Your task to perform on an android device: Search for "dell alienware" on bestbuy, select the first entry, and add it to the cart. Image 0: 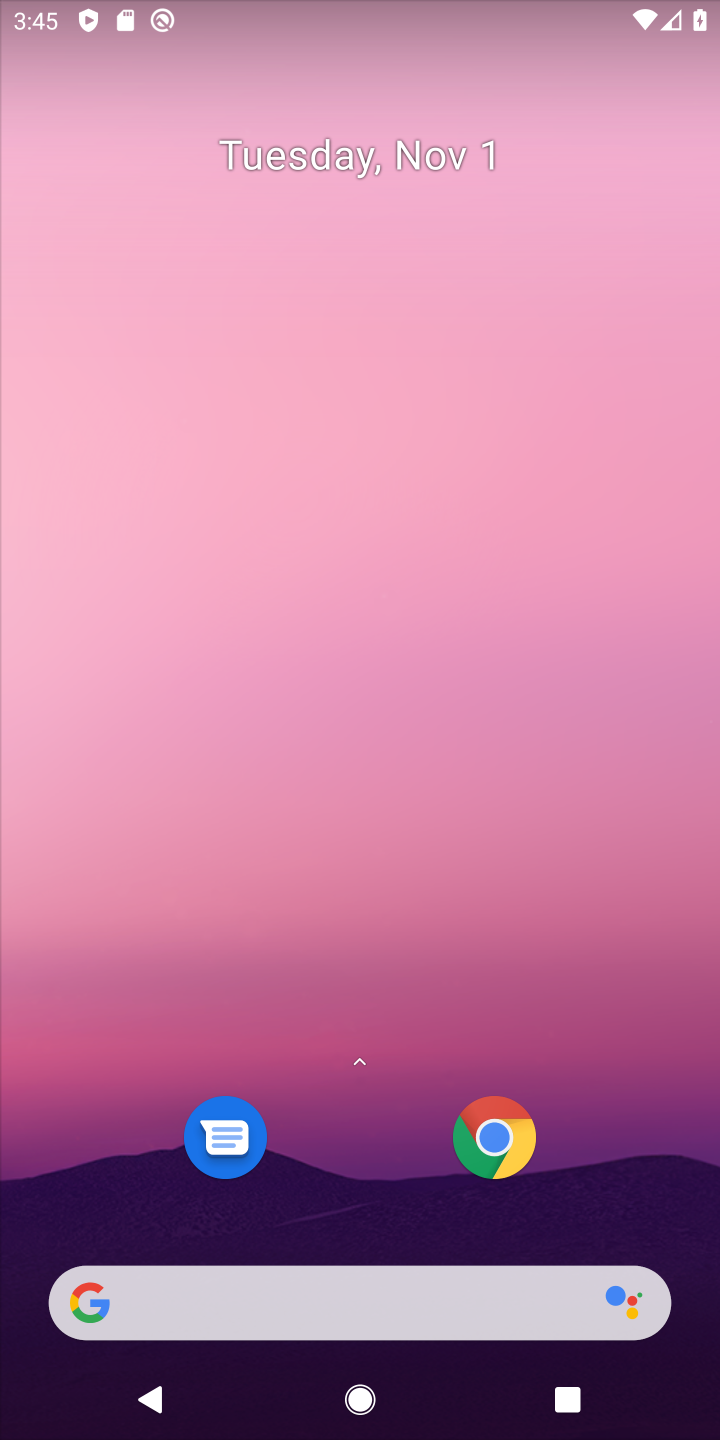
Step 0: click (463, 1313)
Your task to perform on an android device: Search for "dell alienware" on bestbuy, select the first entry, and add it to the cart. Image 1: 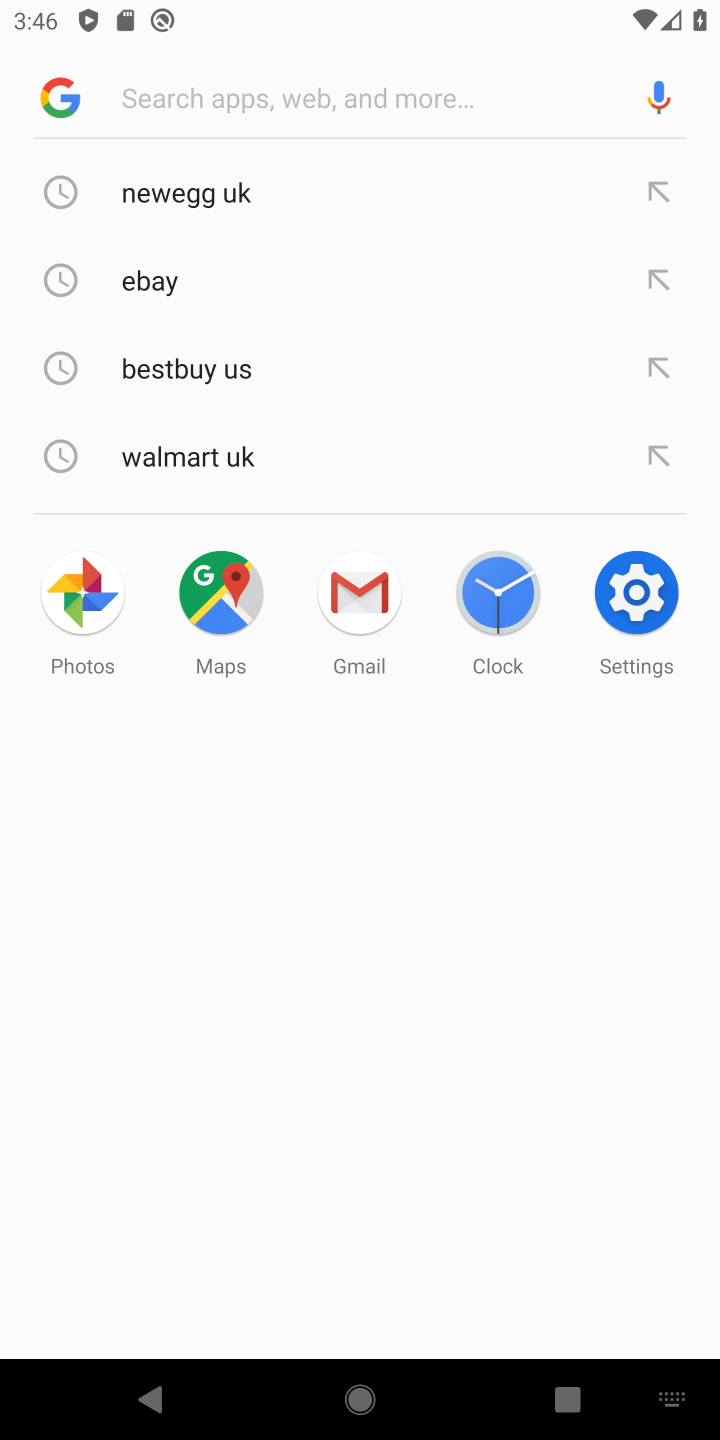
Step 1: type "bestbuy"
Your task to perform on an android device: Search for "dell alienware" on bestbuy, select the first entry, and add it to the cart. Image 2: 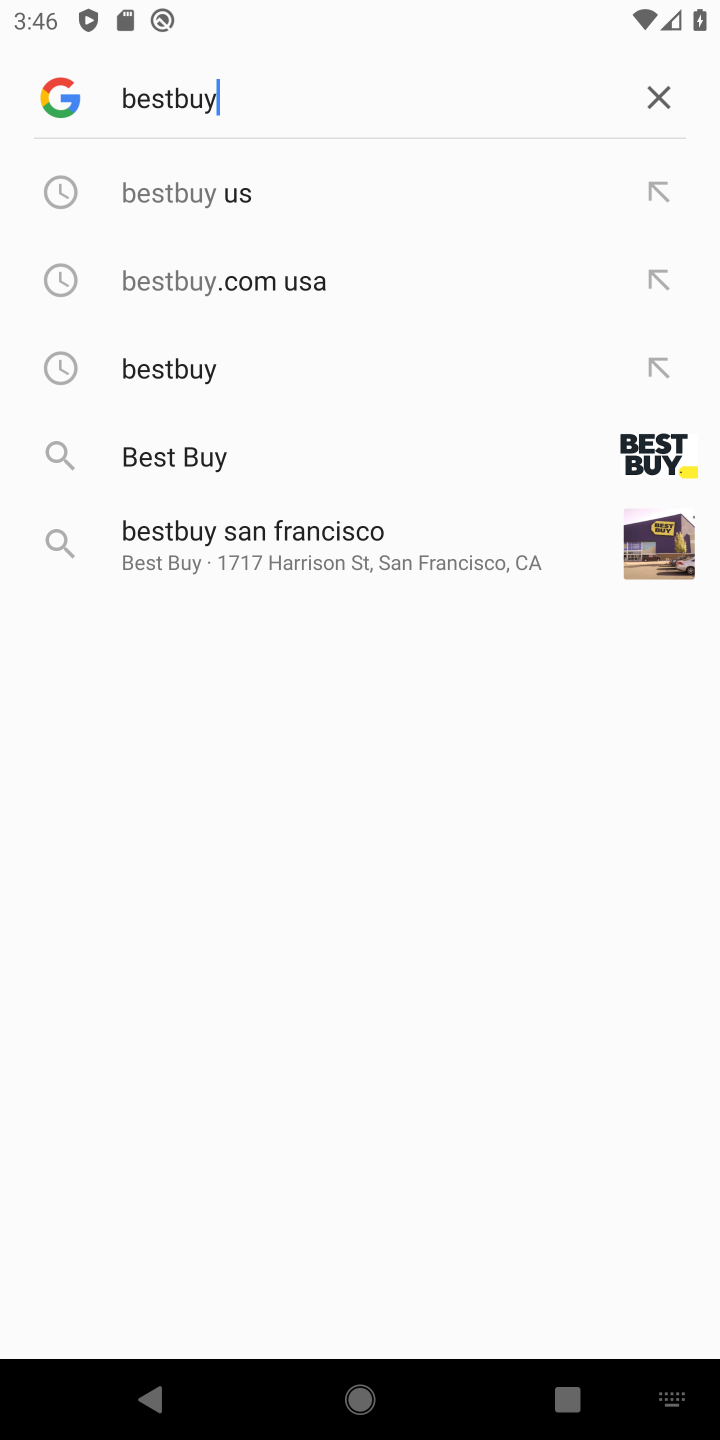
Step 2: click (181, 178)
Your task to perform on an android device: Search for "dell alienware" on bestbuy, select the first entry, and add it to the cart. Image 3: 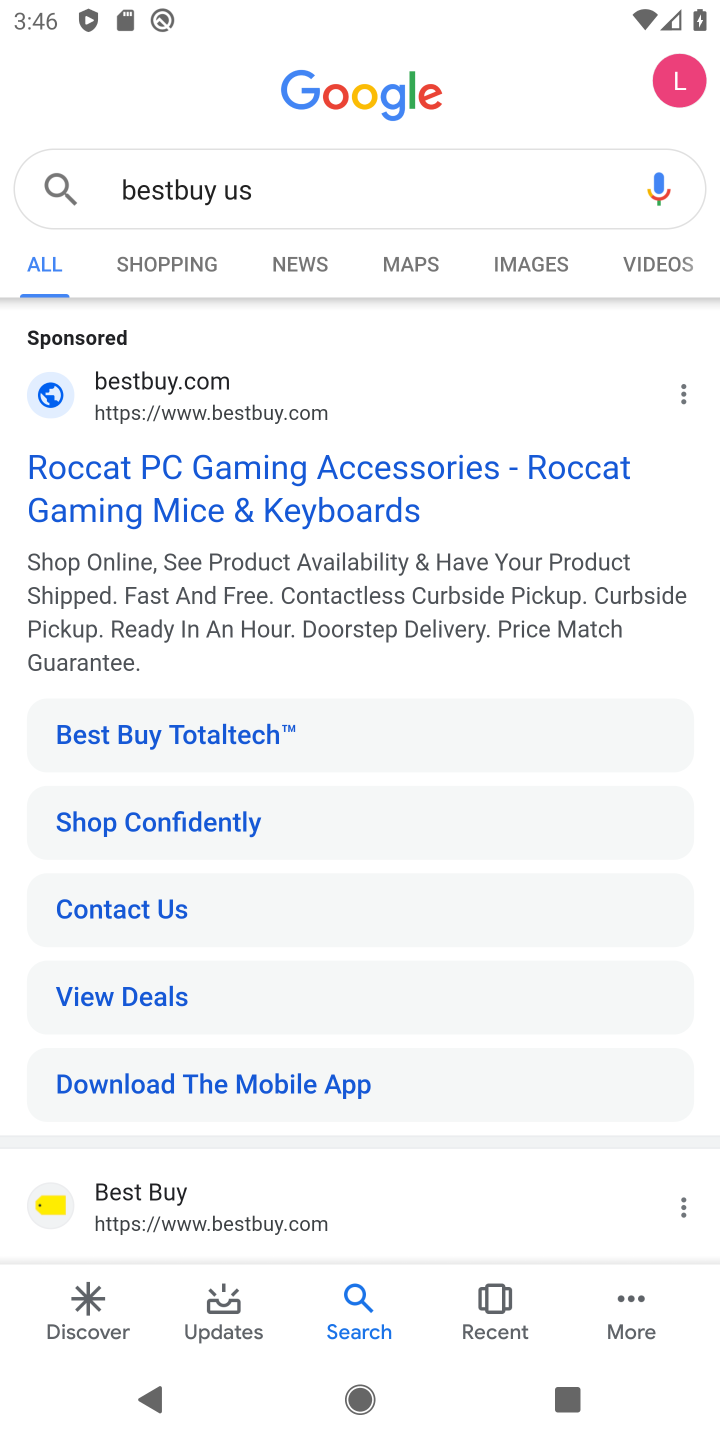
Step 3: click (256, 473)
Your task to perform on an android device: Search for "dell alienware" on bestbuy, select the first entry, and add it to the cart. Image 4: 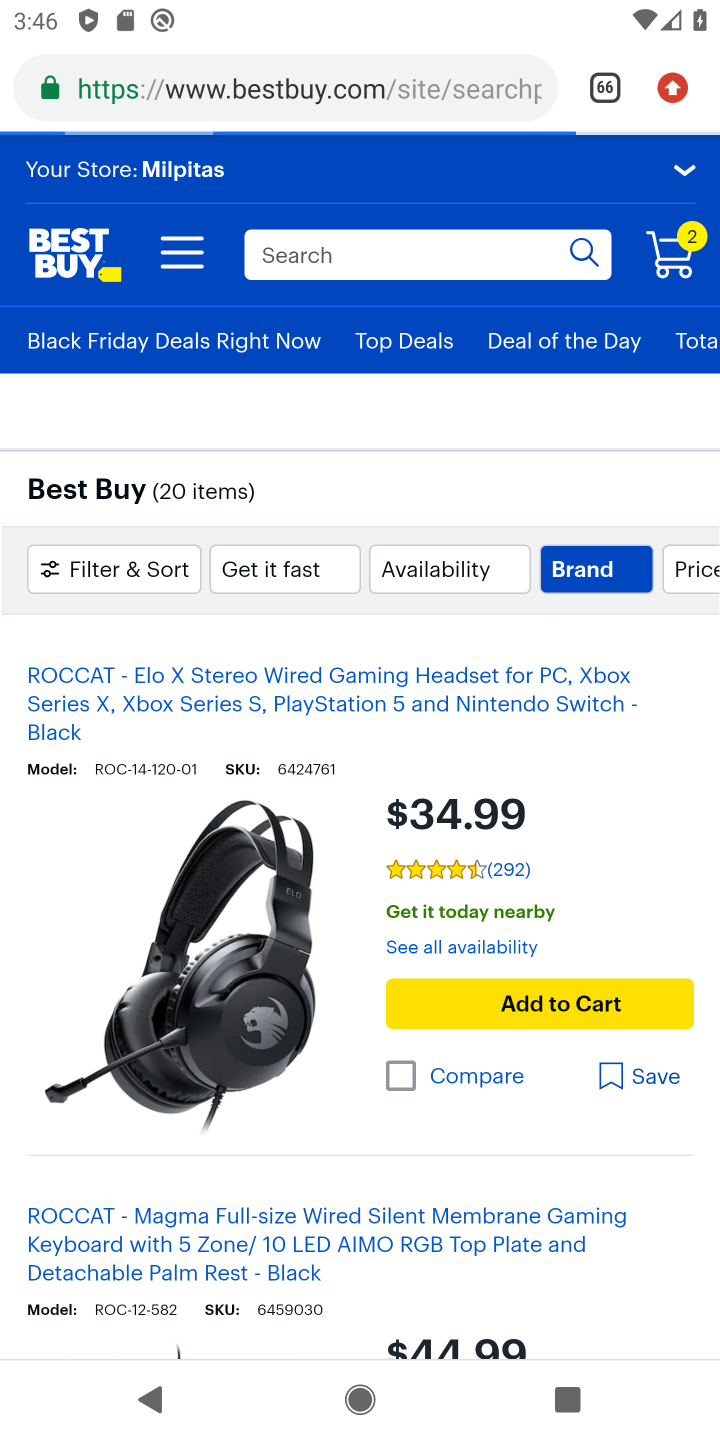
Step 4: click (311, 252)
Your task to perform on an android device: Search for "dell alienware" on bestbuy, select the first entry, and add it to the cart. Image 5: 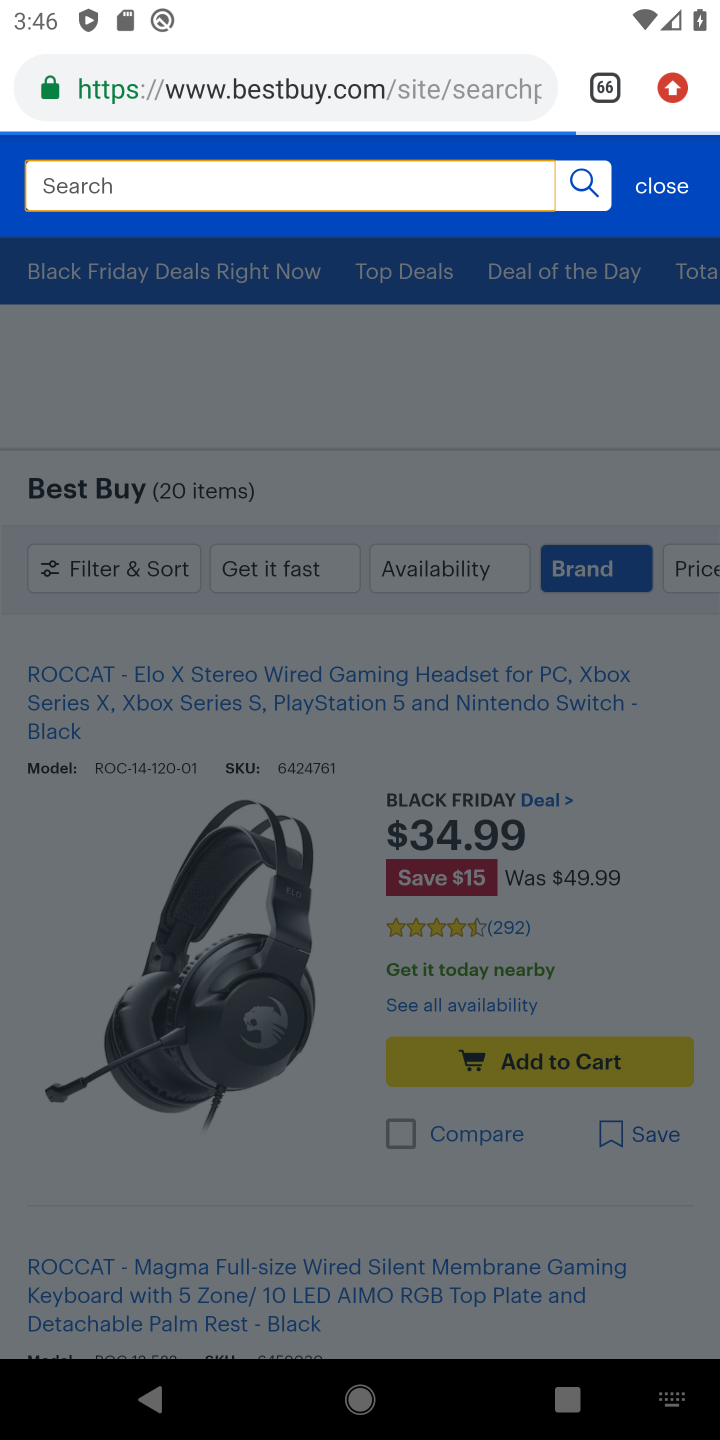
Step 5: type "dell alienware"
Your task to perform on an android device: Search for "dell alienware" on bestbuy, select the first entry, and add it to the cart. Image 6: 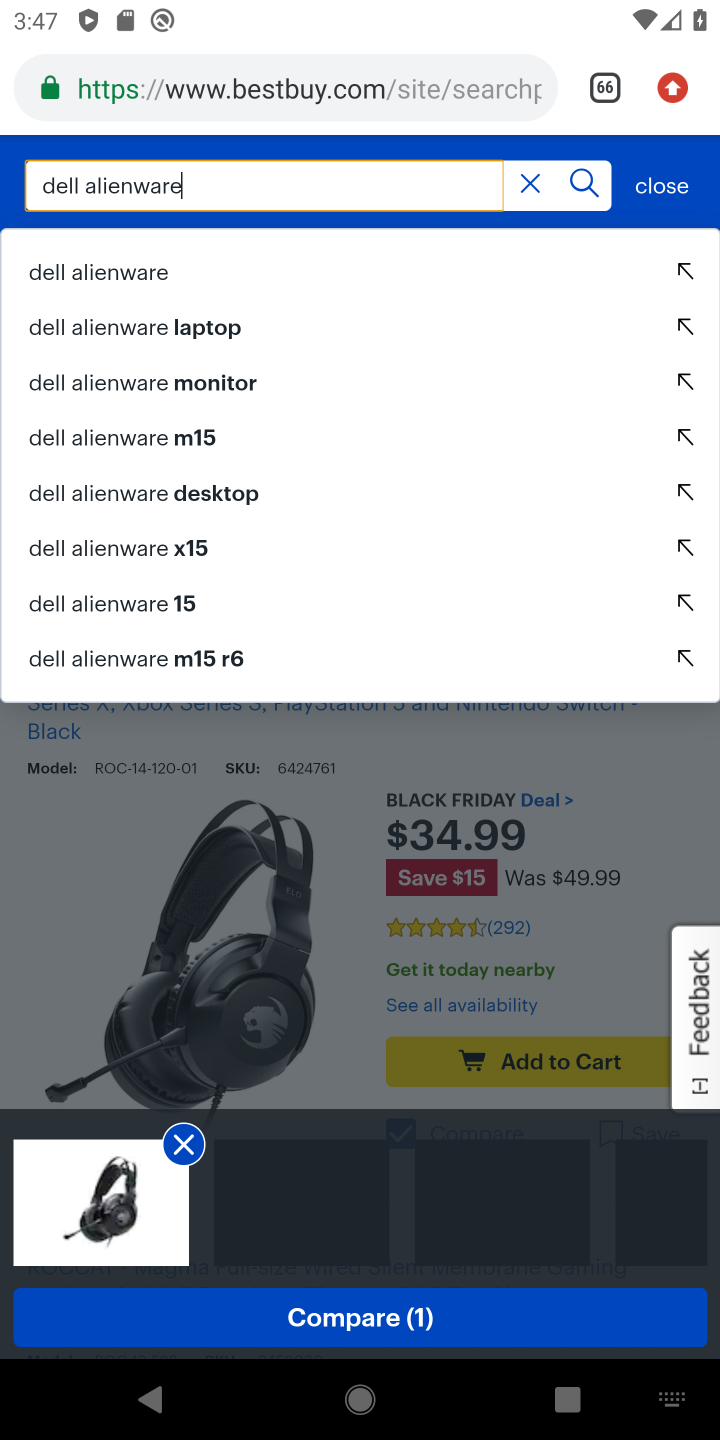
Step 6: click (190, 265)
Your task to perform on an android device: Search for "dell alienware" on bestbuy, select the first entry, and add it to the cart. Image 7: 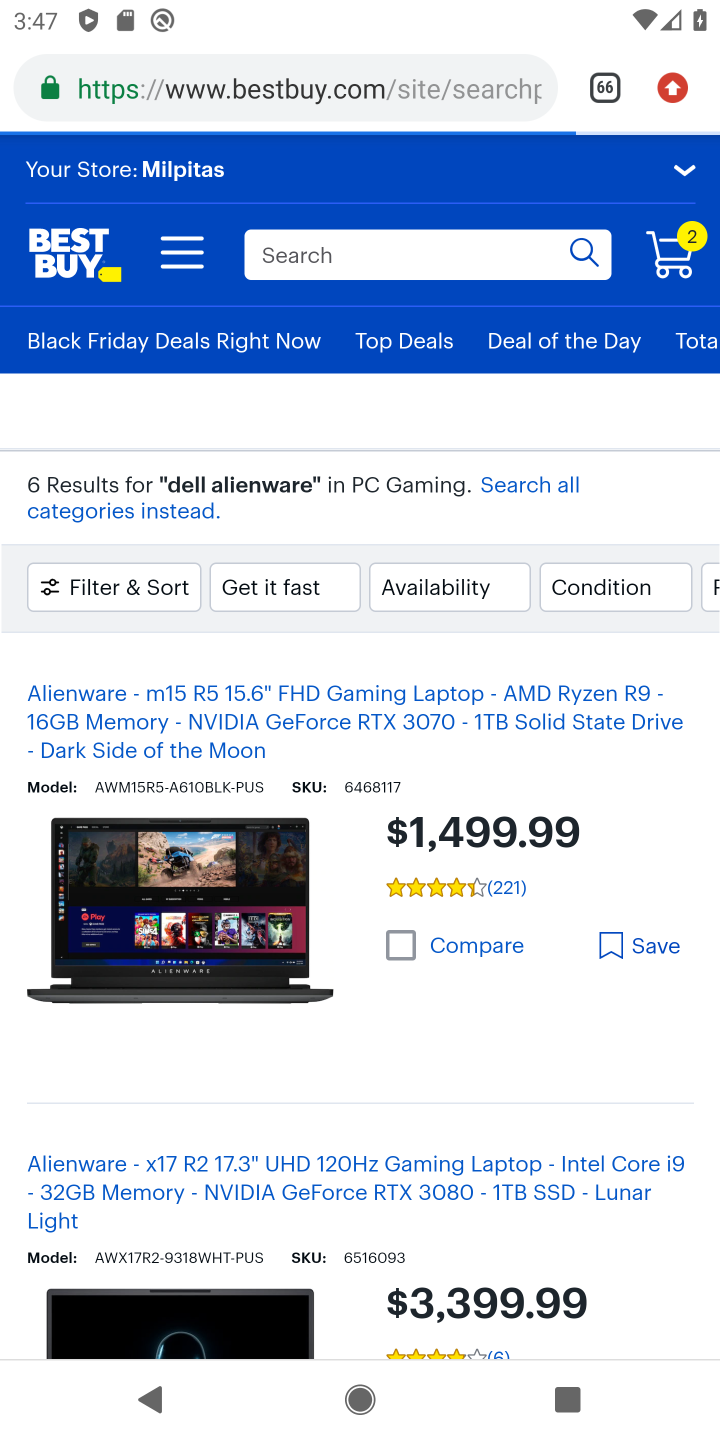
Step 7: click (518, 850)
Your task to perform on an android device: Search for "dell alienware" on bestbuy, select the first entry, and add it to the cart. Image 8: 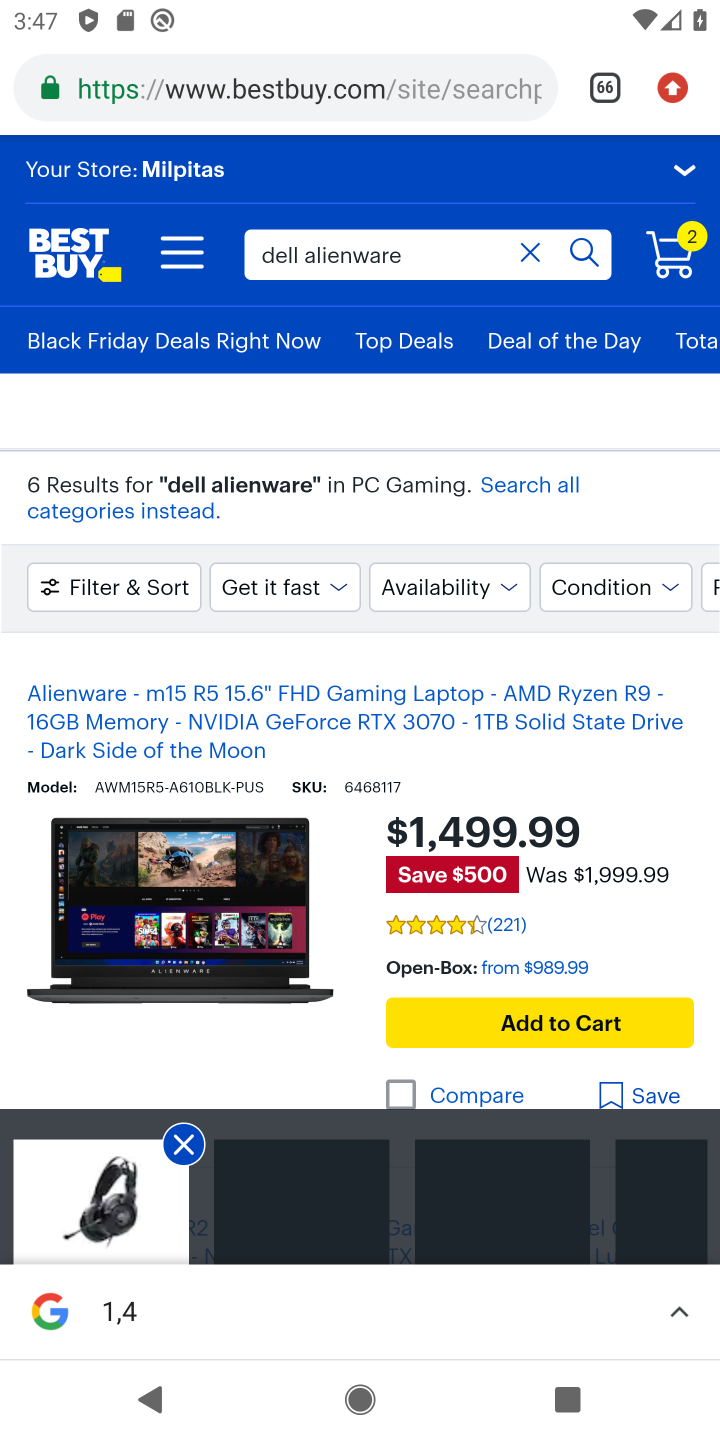
Step 8: click (478, 1051)
Your task to perform on an android device: Search for "dell alienware" on bestbuy, select the first entry, and add it to the cart. Image 9: 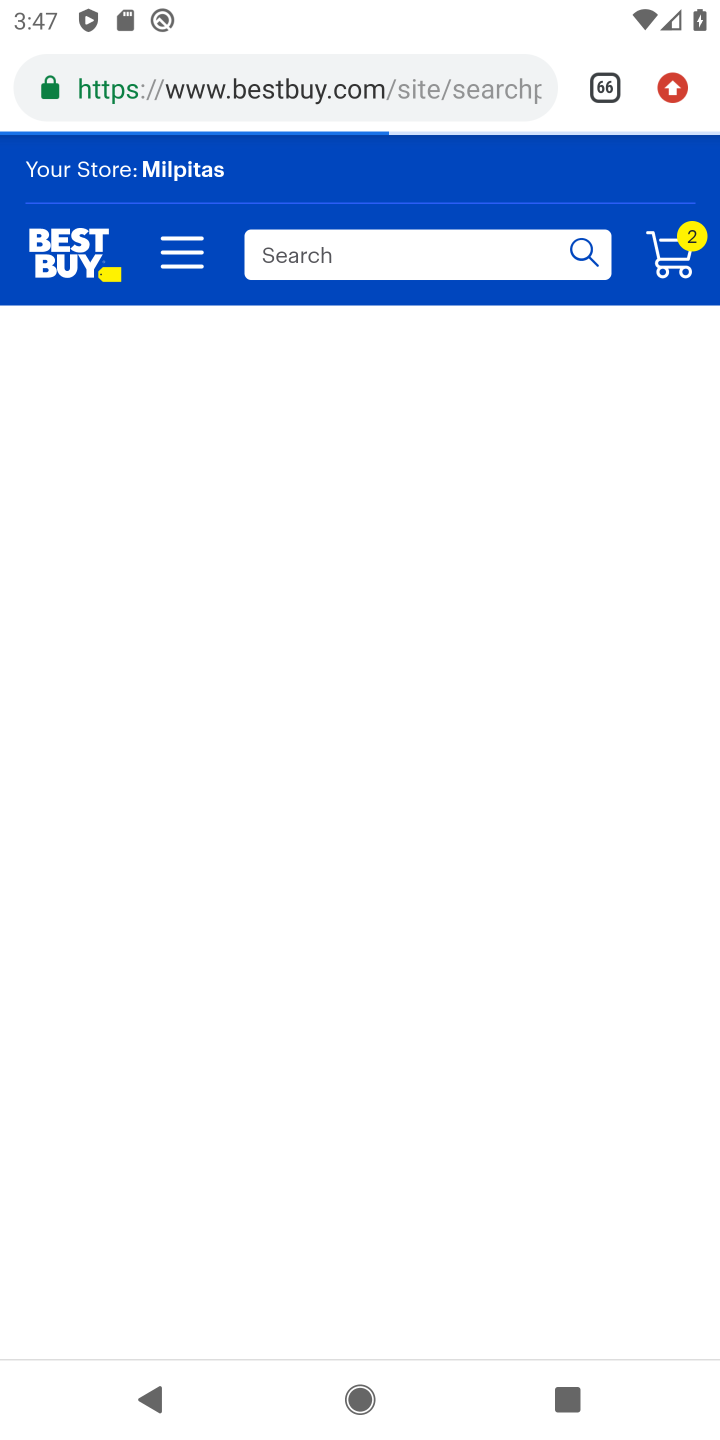
Step 9: task complete